Your task to perform on an android device: Go to eBay Image 0: 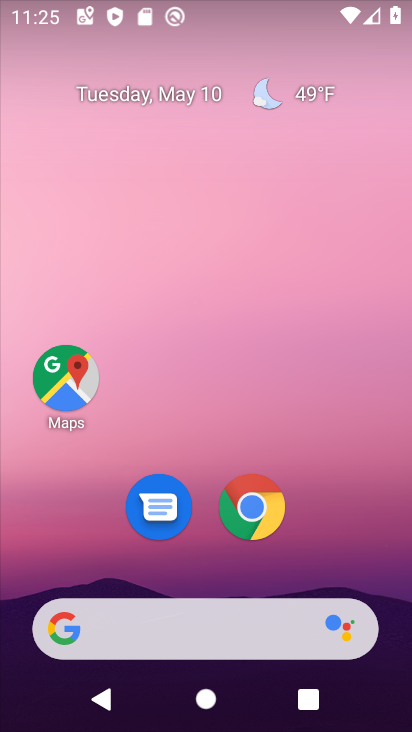
Step 0: drag from (214, 552) to (203, 91)
Your task to perform on an android device: Go to eBay Image 1: 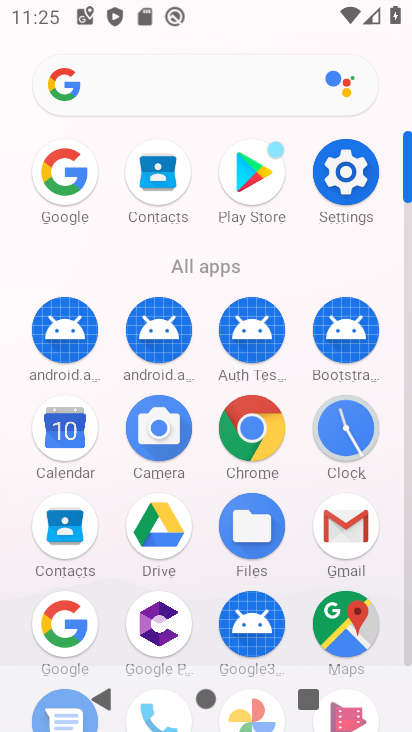
Step 1: click (75, 619)
Your task to perform on an android device: Go to eBay Image 2: 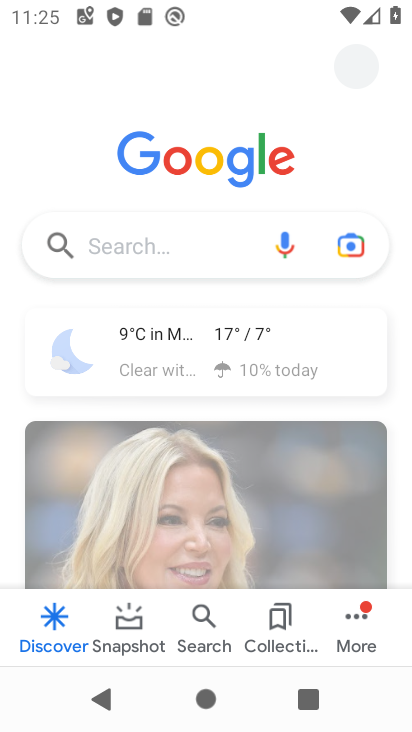
Step 2: click (162, 234)
Your task to perform on an android device: Go to eBay Image 3: 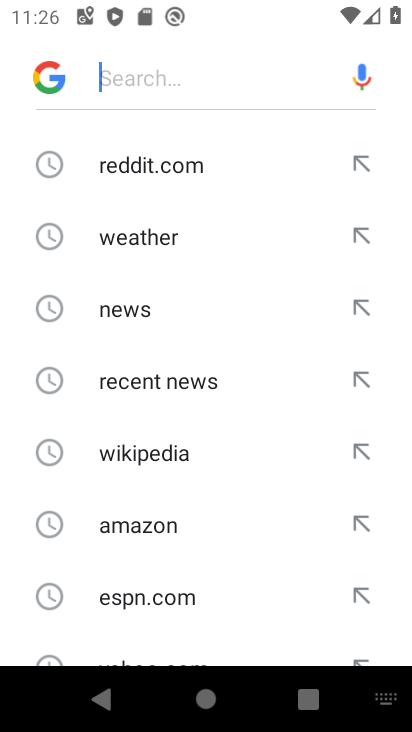
Step 3: drag from (211, 531) to (197, 219)
Your task to perform on an android device: Go to eBay Image 4: 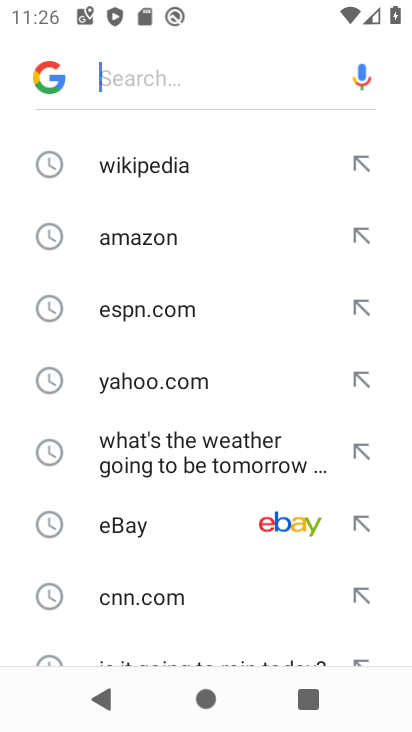
Step 4: click (173, 527)
Your task to perform on an android device: Go to eBay Image 5: 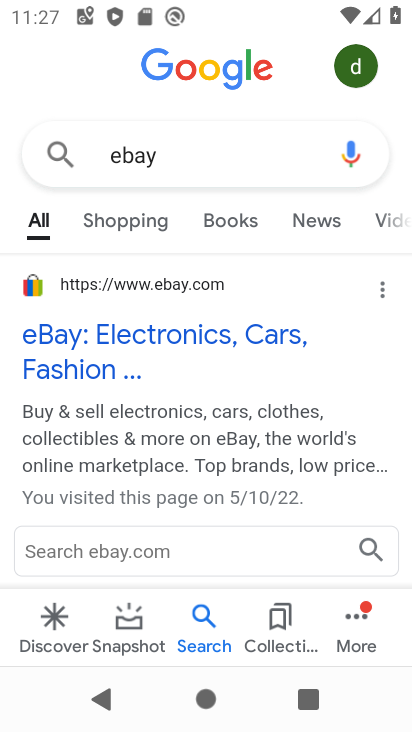
Step 5: task complete